Your task to perform on an android device: check storage Image 0: 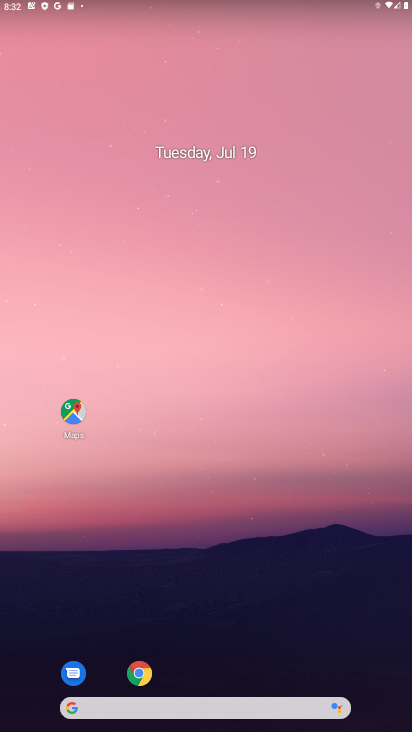
Step 0: drag from (275, 670) to (271, 251)
Your task to perform on an android device: check storage Image 1: 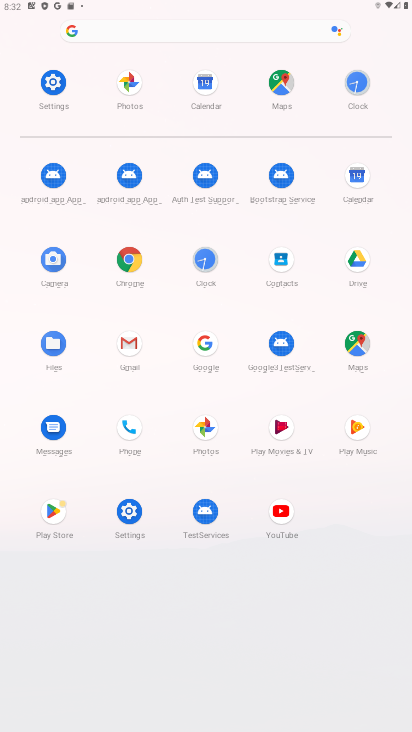
Step 1: click (124, 530)
Your task to perform on an android device: check storage Image 2: 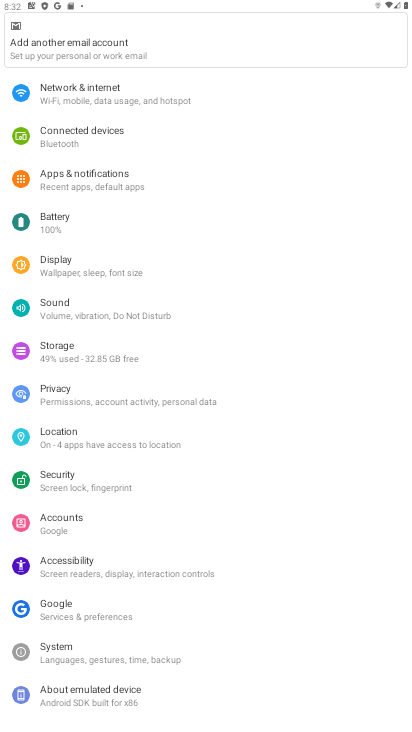
Step 2: click (103, 361)
Your task to perform on an android device: check storage Image 3: 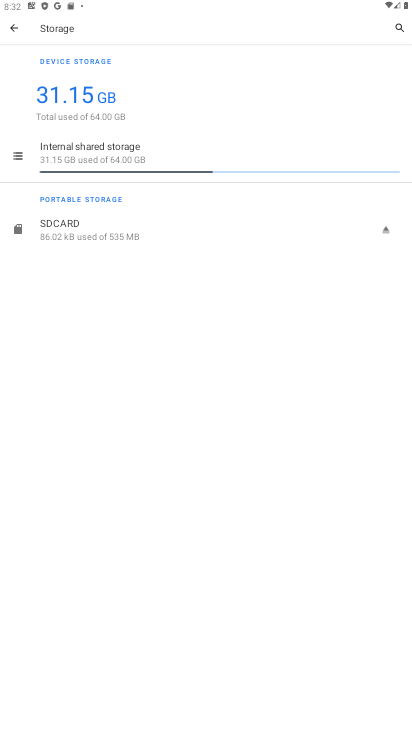
Step 3: task complete